Your task to perform on an android device: Open Reddit.com Image 0: 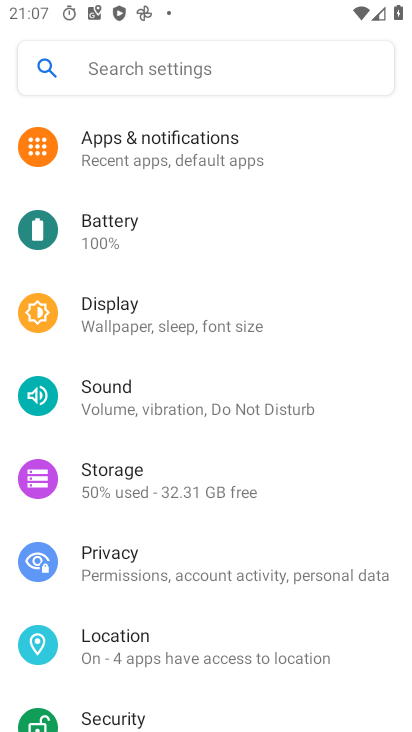
Step 0: press home button
Your task to perform on an android device: Open Reddit.com Image 1: 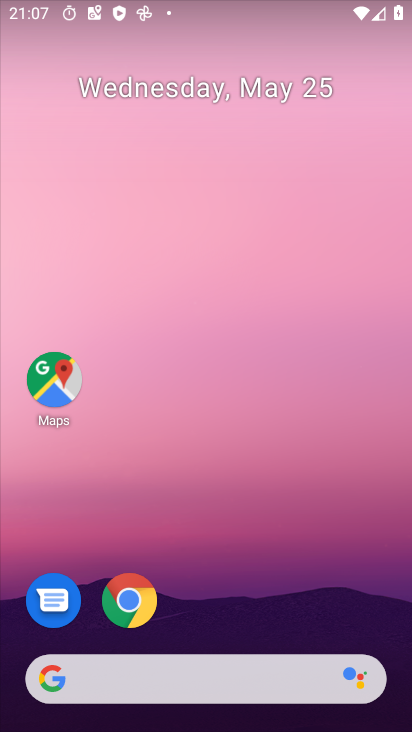
Step 1: drag from (376, 621) to (339, 164)
Your task to perform on an android device: Open Reddit.com Image 2: 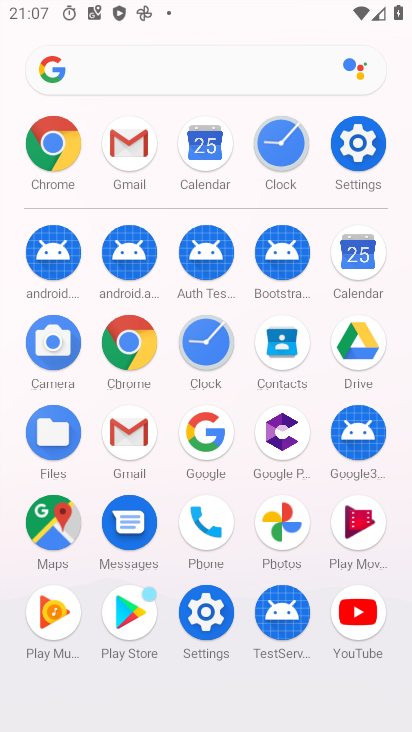
Step 2: click (134, 360)
Your task to perform on an android device: Open Reddit.com Image 3: 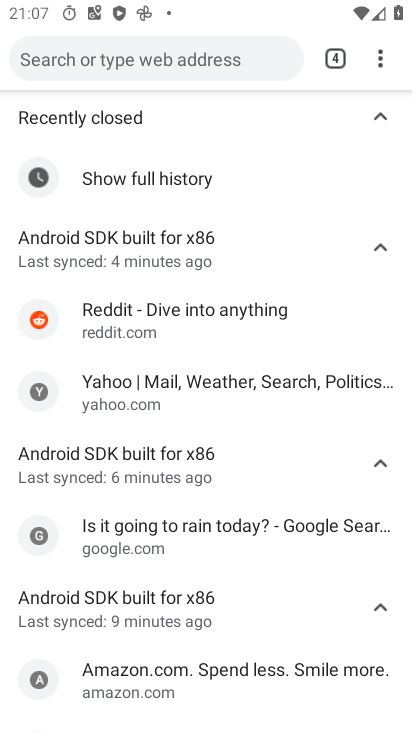
Step 3: click (145, 63)
Your task to perform on an android device: Open Reddit.com Image 4: 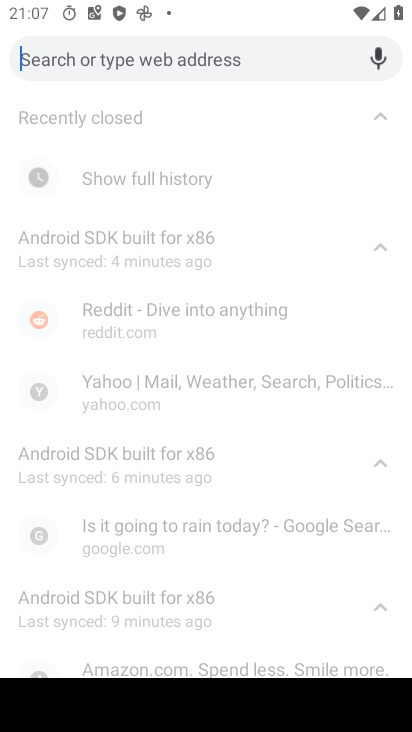
Step 4: type "reddit.com"
Your task to perform on an android device: Open Reddit.com Image 5: 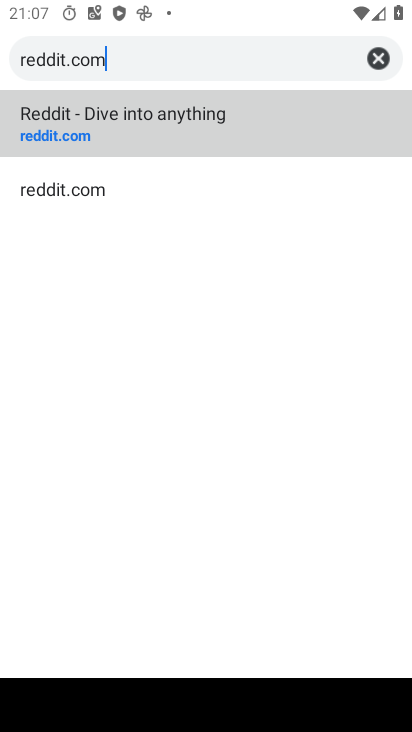
Step 5: click (129, 119)
Your task to perform on an android device: Open Reddit.com Image 6: 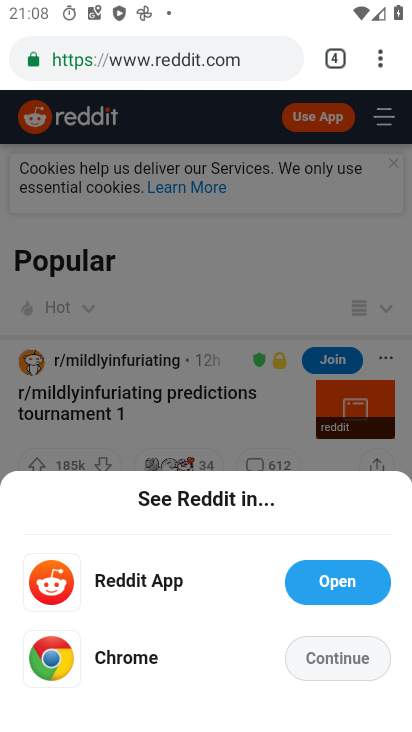
Step 6: task complete